Your task to perform on an android device: Open maps Image 0: 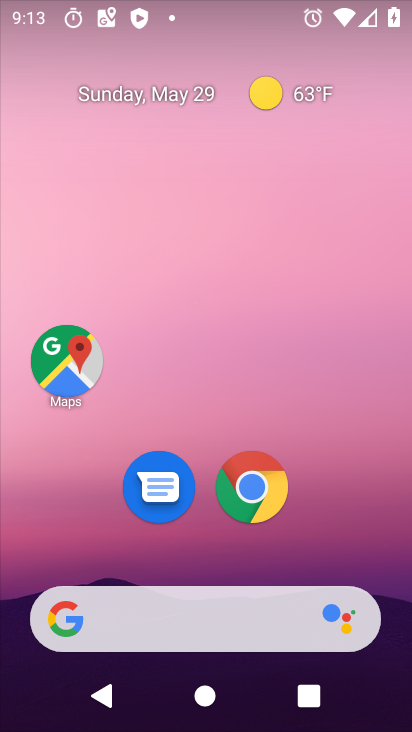
Step 0: click (80, 359)
Your task to perform on an android device: Open maps Image 1: 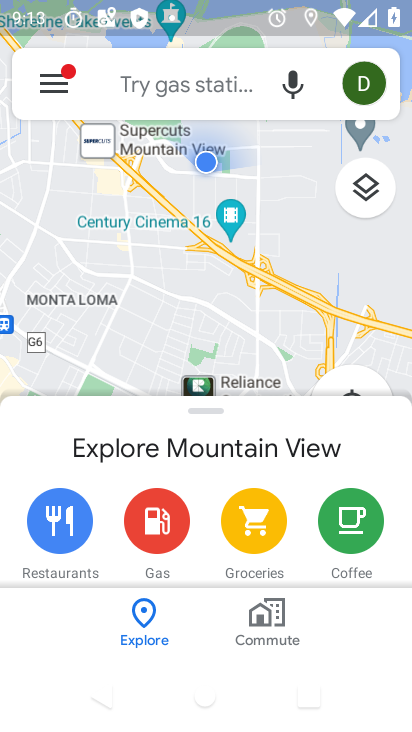
Step 1: task complete